Your task to perform on an android device: Show me recent news Image 0: 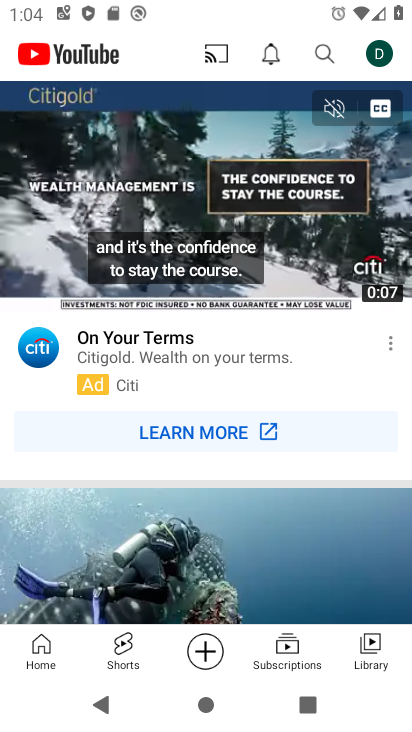
Step 0: press home button
Your task to perform on an android device: Show me recent news Image 1: 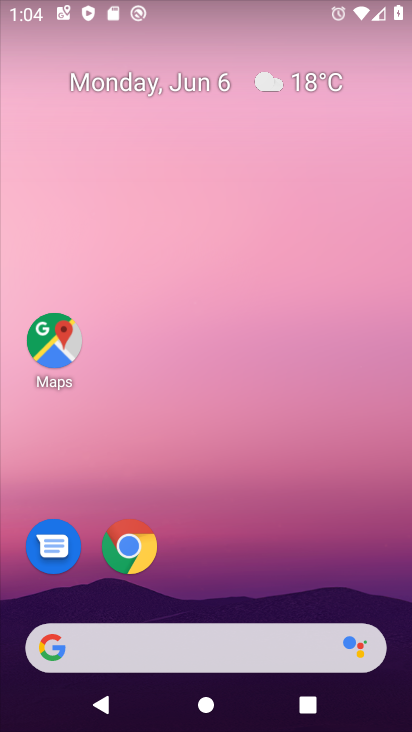
Step 1: click (198, 654)
Your task to perform on an android device: Show me recent news Image 2: 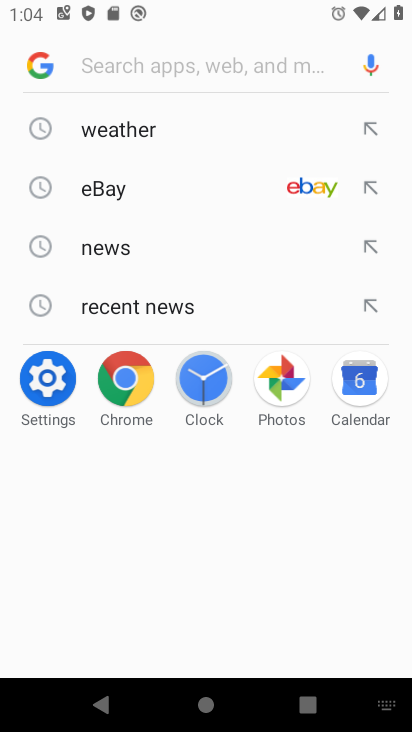
Step 2: click (94, 306)
Your task to perform on an android device: Show me recent news Image 3: 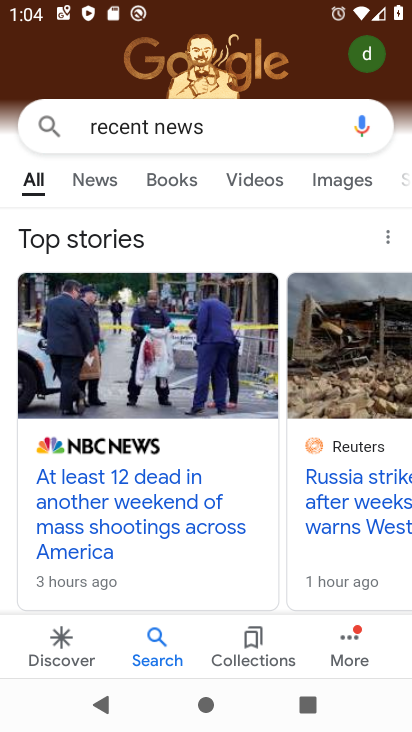
Step 3: task complete